Your task to perform on an android device: open app "eBay: The shopping marketplace" (install if not already installed) and go to login screen Image 0: 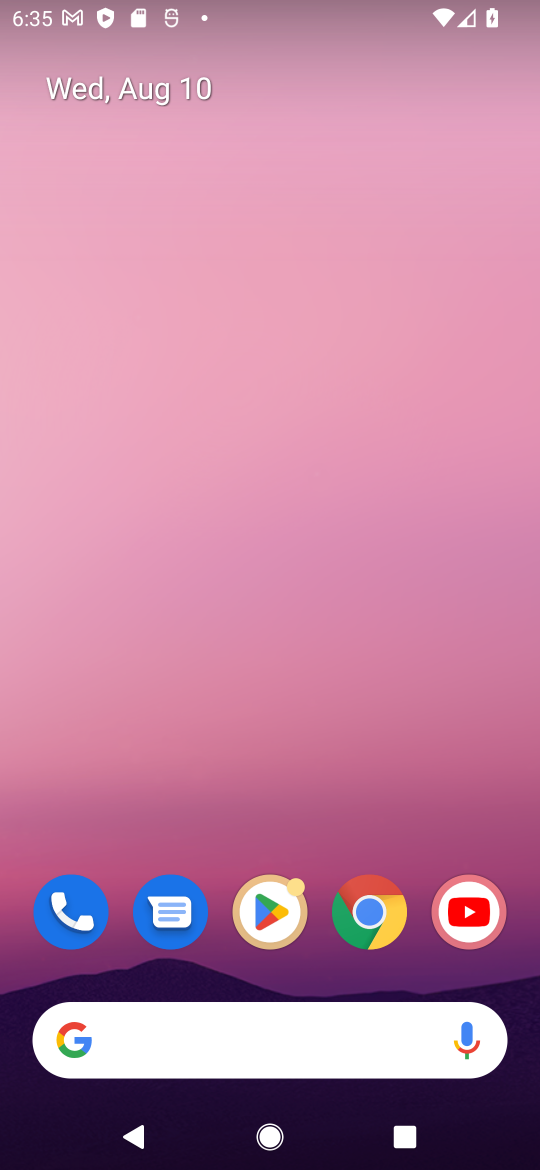
Step 0: drag from (516, 968) to (306, 52)
Your task to perform on an android device: open app "eBay: The shopping marketplace" (install if not already installed) and go to login screen Image 1: 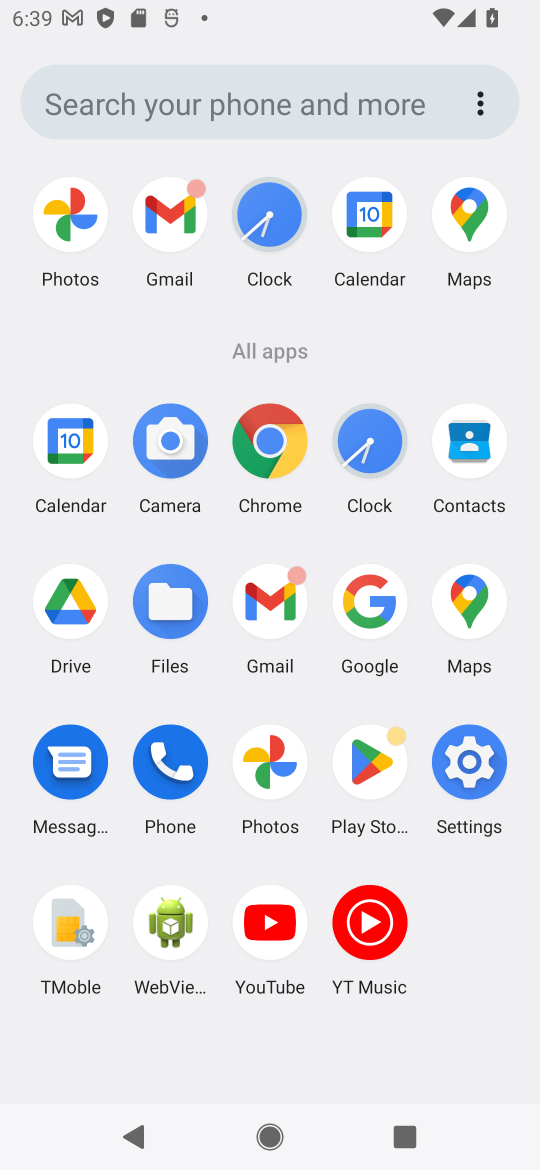
Step 1: click (375, 764)
Your task to perform on an android device: open app "eBay: The shopping marketplace" (install if not already installed) and go to login screen Image 2: 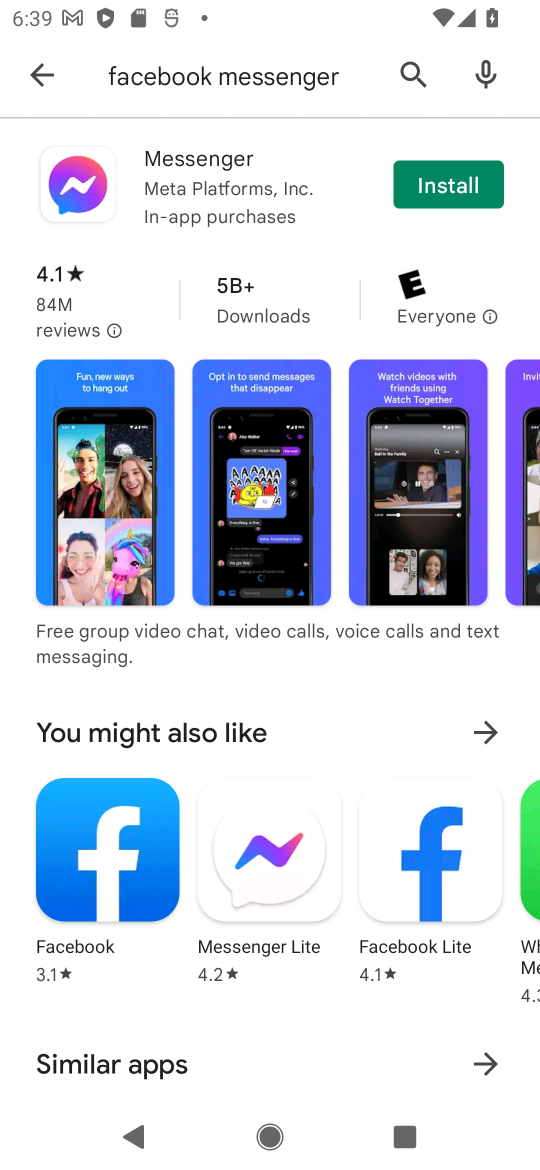
Step 2: press back button
Your task to perform on an android device: open app "eBay: The shopping marketplace" (install if not already installed) and go to login screen Image 3: 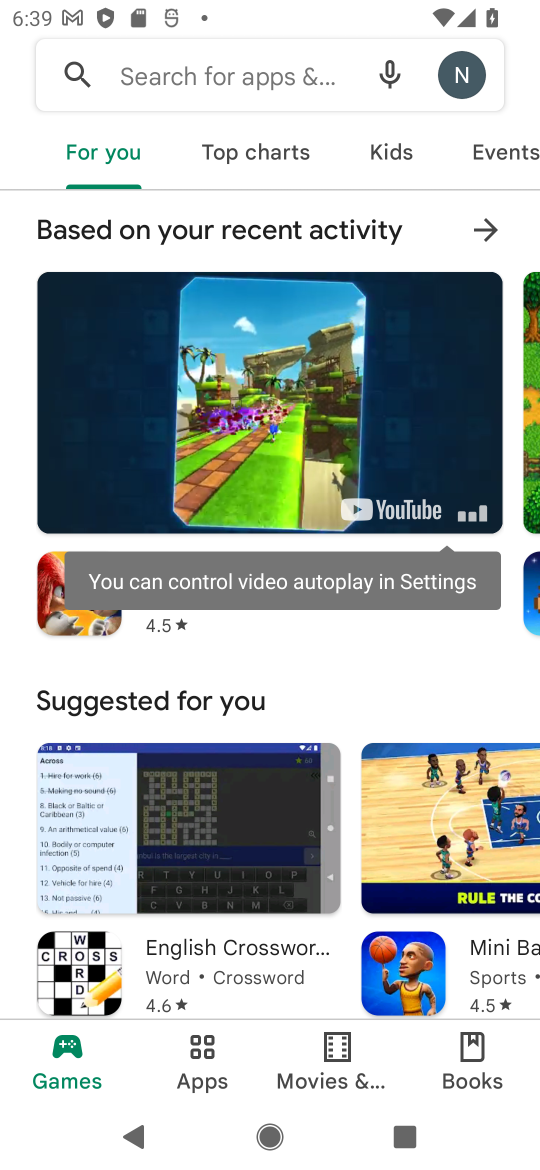
Step 3: click (198, 64)
Your task to perform on an android device: open app "eBay: The shopping marketplace" (install if not already installed) and go to login screen Image 4: 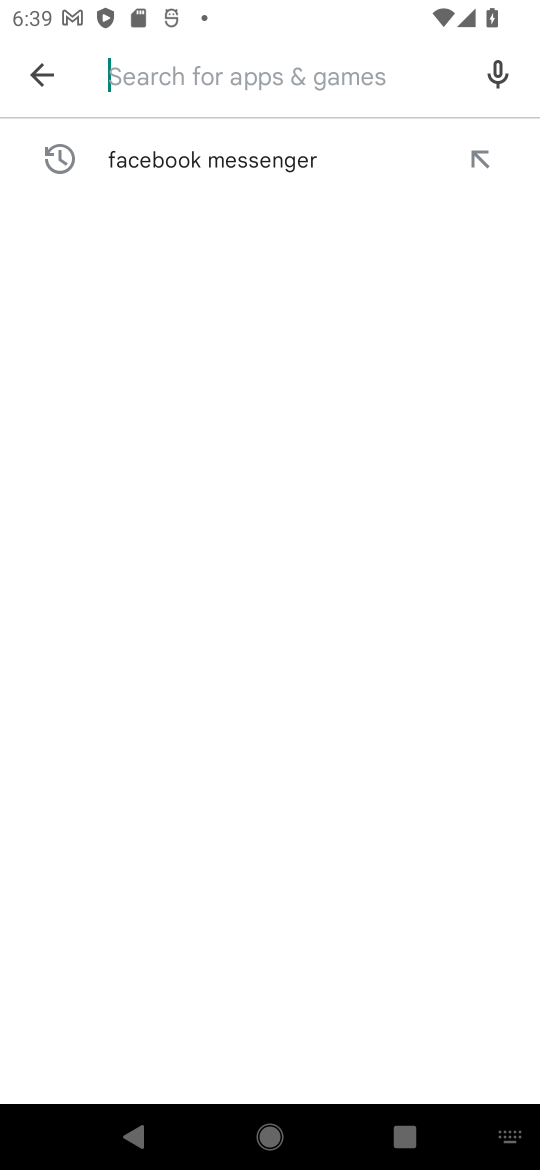
Step 4: type "eBay: The shopping marketplace"
Your task to perform on an android device: open app "eBay: The shopping marketplace" (install if not already installed) and go to login screen Image 5: 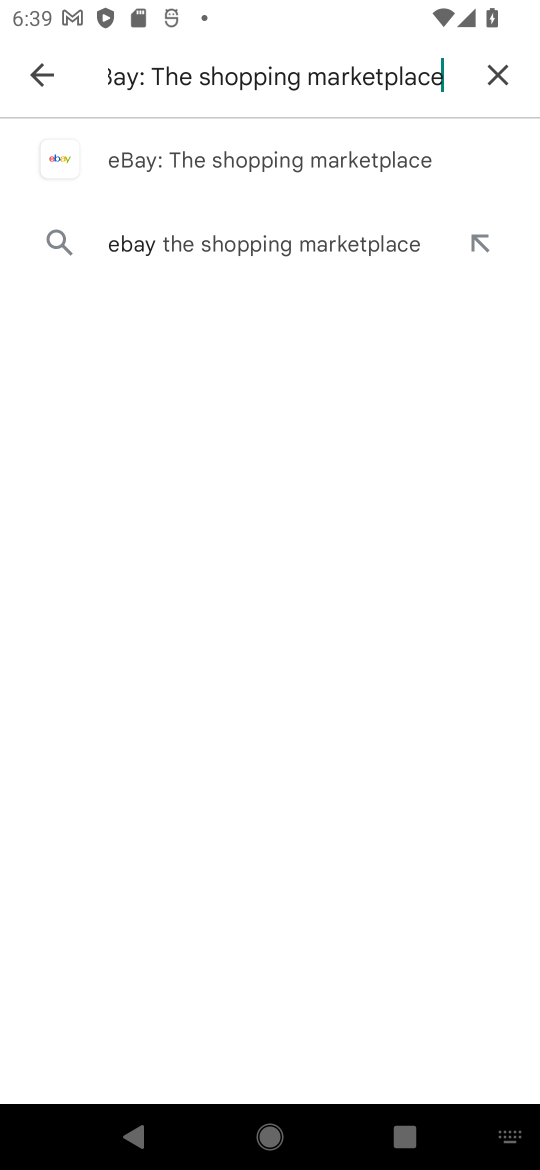
Step 5: click (232, 154)
Your task to perform on an android device: open app "eBay: The shopping marketplace" (install if not already installed) and go to login screen Image 6: 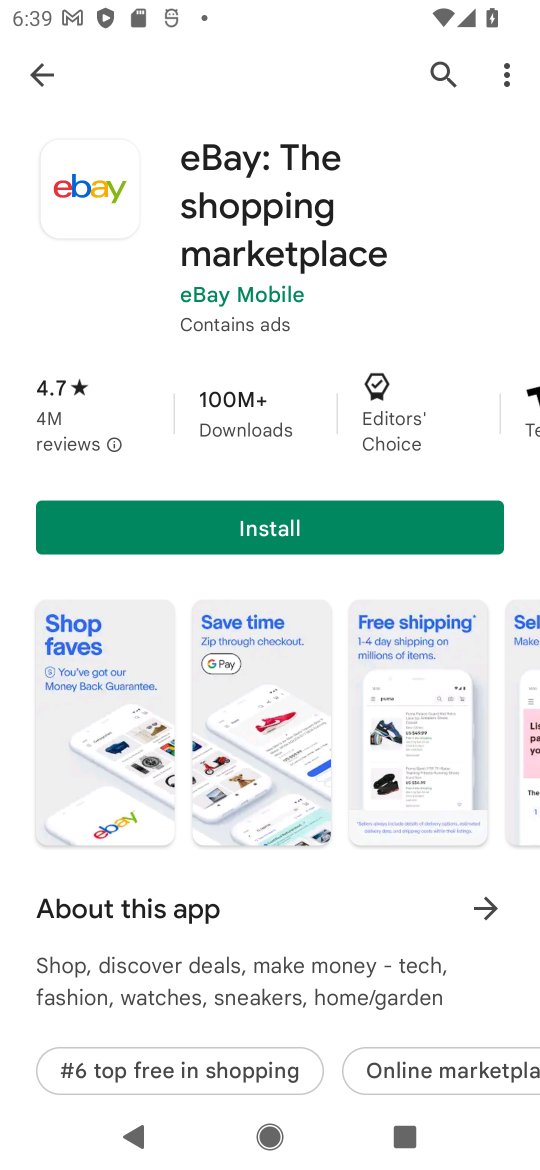
Step 6: task complete